Your task to perform on an android device: toggle notifications settings in the gmail app Image 0: 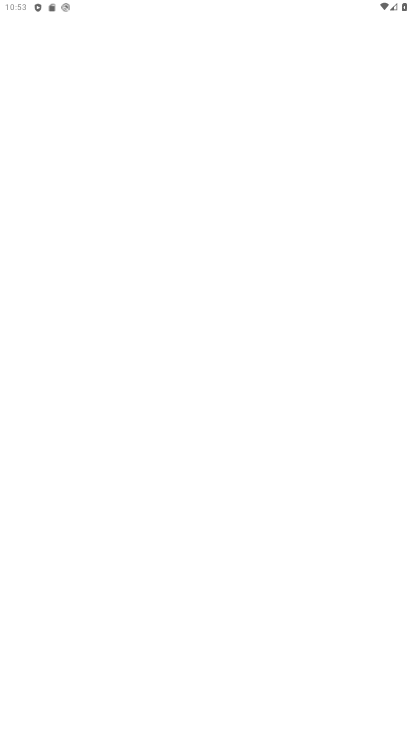
Step 0: press home button
Your task to perform on an android device: toggle notifications settings in the gmail app Image 1: 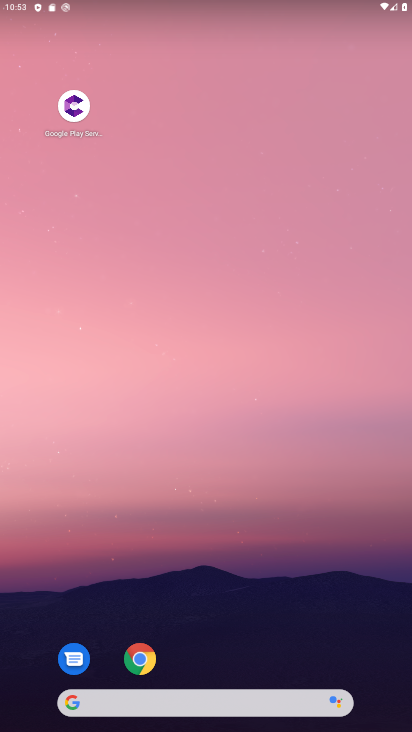
Step 1: drag from (140, 574) to (151, 249)
Your task to perform on an android device: toggle notifications settings in the gmail app Image 2: 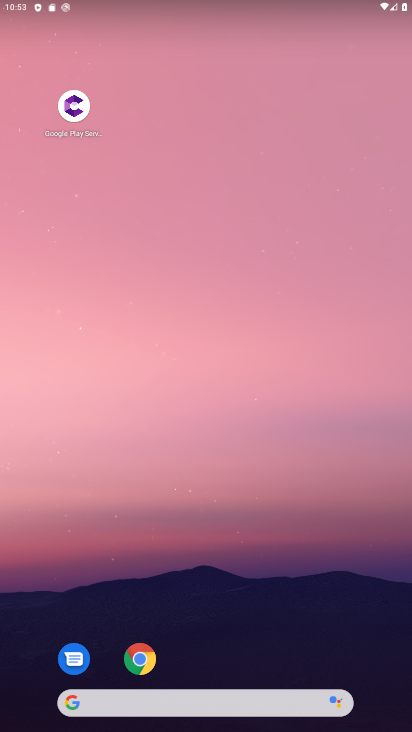
Step 2: drag from (205, 672) to (232, 377)
Your task to perform on an android device: toggle notifications settings in the gmail app Image 3: 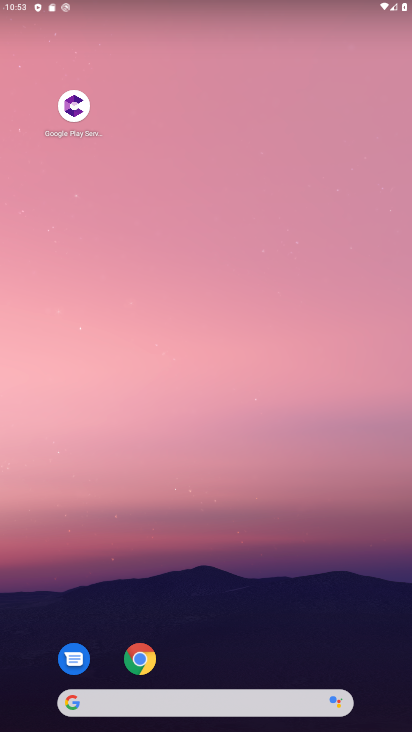
Step 3: drag from (200, 700) to (237, 205)
Your task to perform on an android device: toggle notifications settings in the gmail app Image 4: 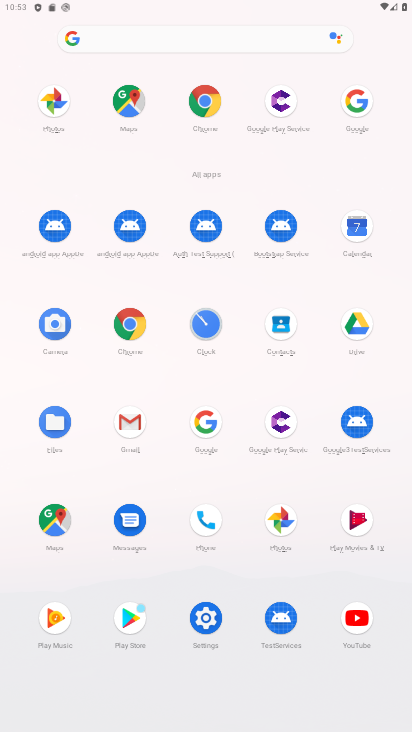
Step 4: click (135, 422)
Your task to perform on an android device: toggle notifications settings in the gmail app Image 5: 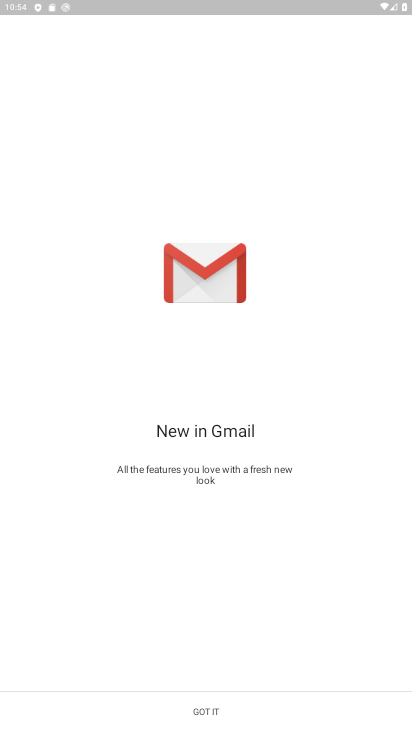
Step 5: click (194, 714)
Your task to perform on an android device: toggle notifications settings in the gmail app Image 6: 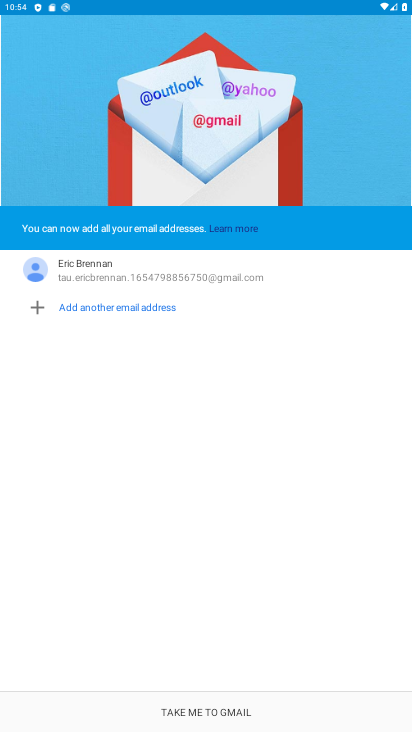
Step 6: click (194, 714)
Your task to perform on an android device: toggle notifications settings in the gmail app Image 7: 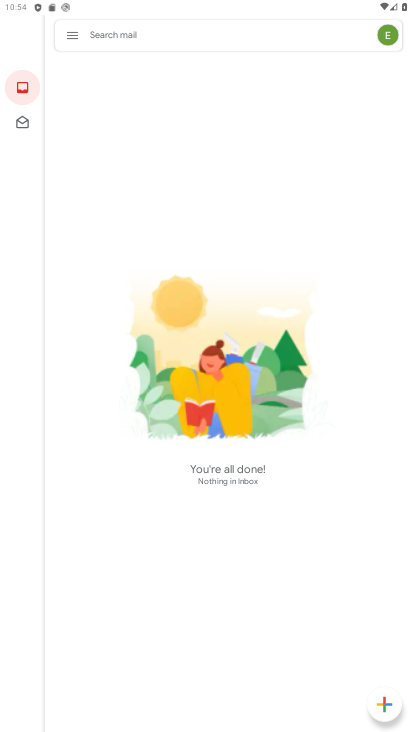
Step 7: click (68, 36)
Your task to perform on an android device: toggle notifications settings in the gmail app Image 8: 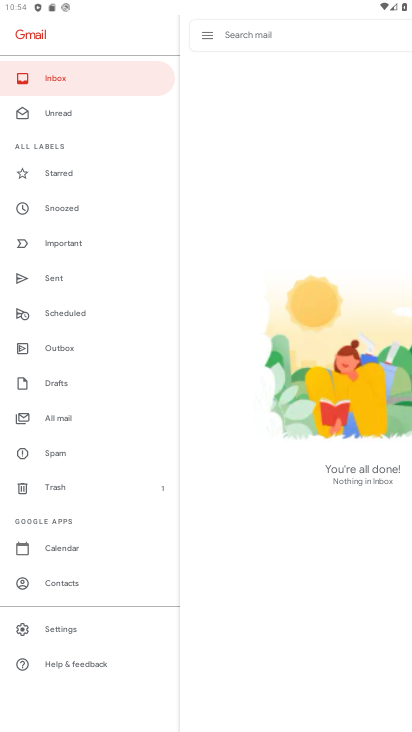
Step 8: click (53, 628)
Your task to perform on an android device: toggle notifications settings in the gmail app Image 9: 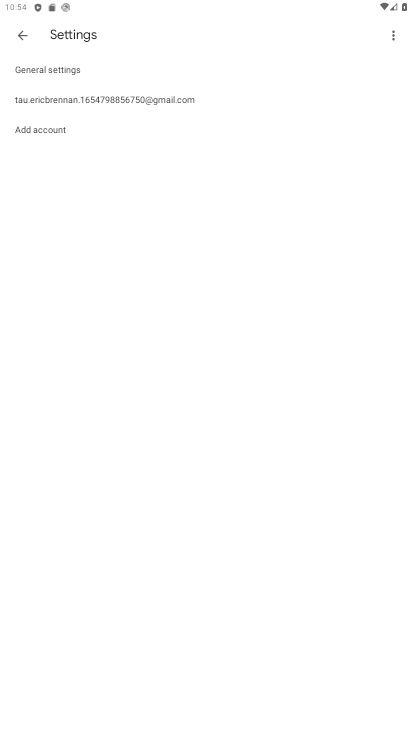
Step 9: click (114, 100)
Your task to perform on an android device: toggle notifications settings in the gmail app Image 10: 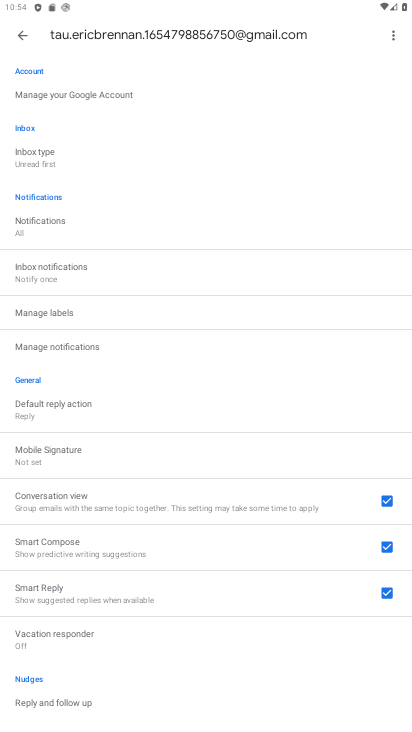
Step 10: click (63, 342)
Your task to perform on an android device: toggle notifications settings in the gmail app Image 11: 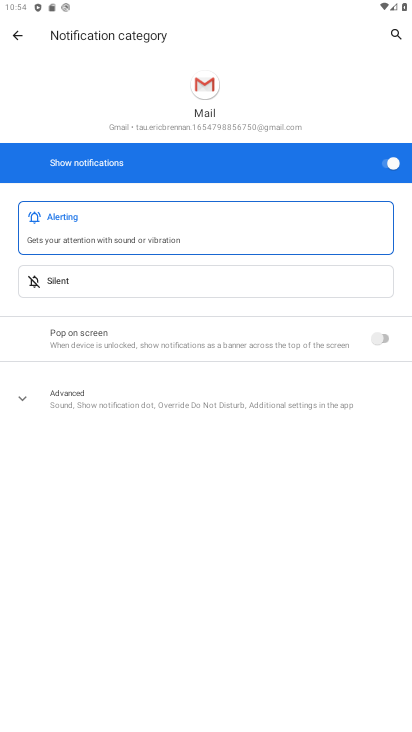
Step 11: click (377, 167)
Your task to perform on an android device: toggle notifications settings in the gmail app Image 12: 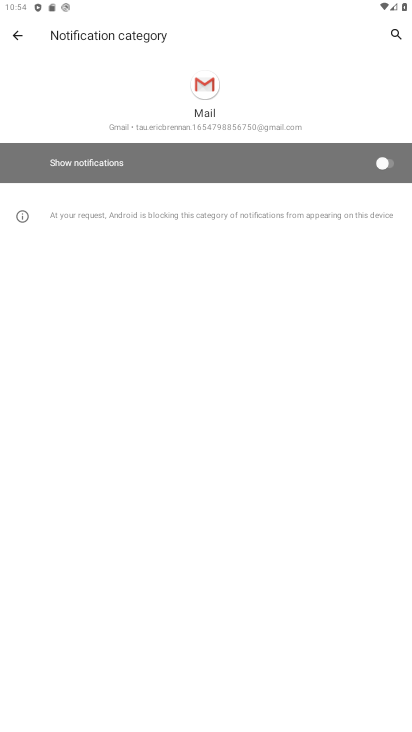
Step 12: task complete